Your task to perform on an android device: turn off location history Image 0: 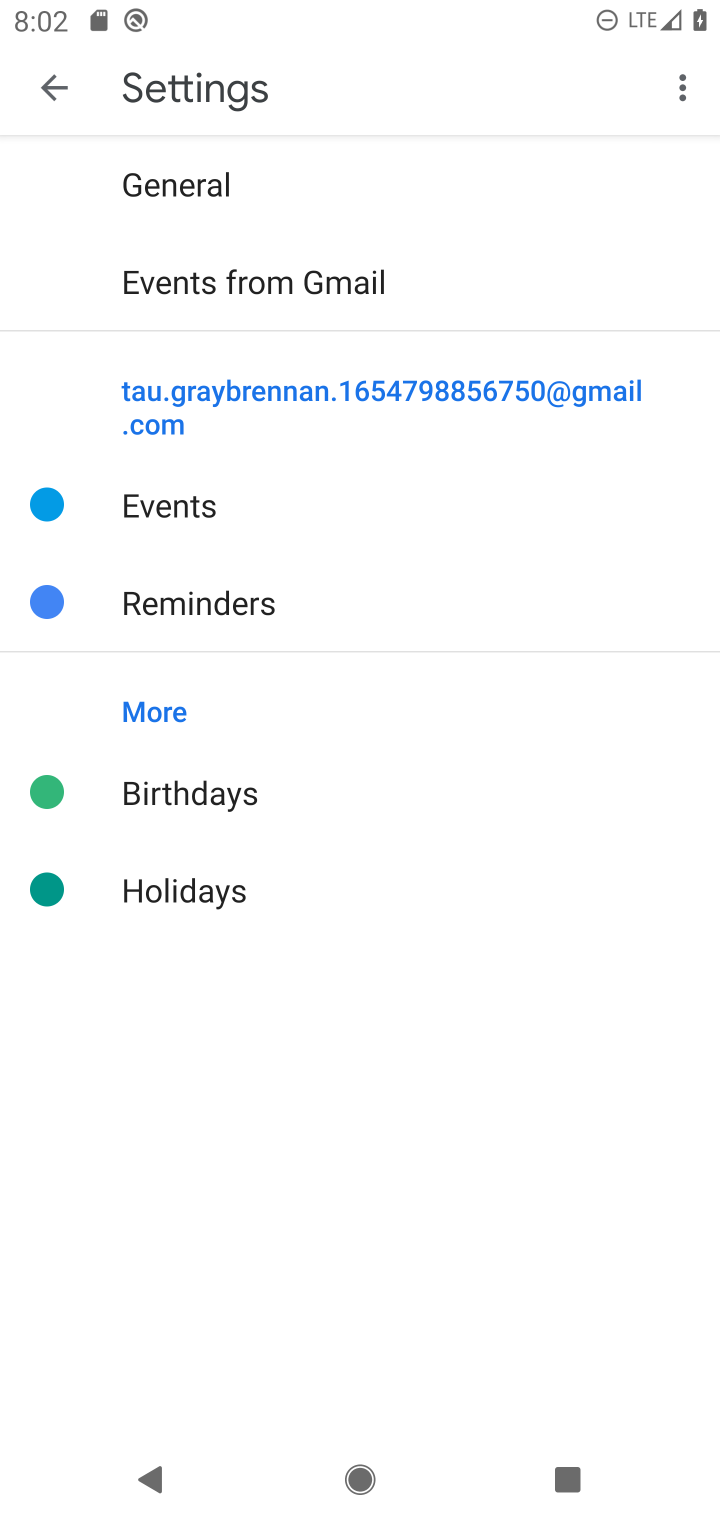
Step 0: press home button
Your task to perform on an android device: turn off location history Image 1: 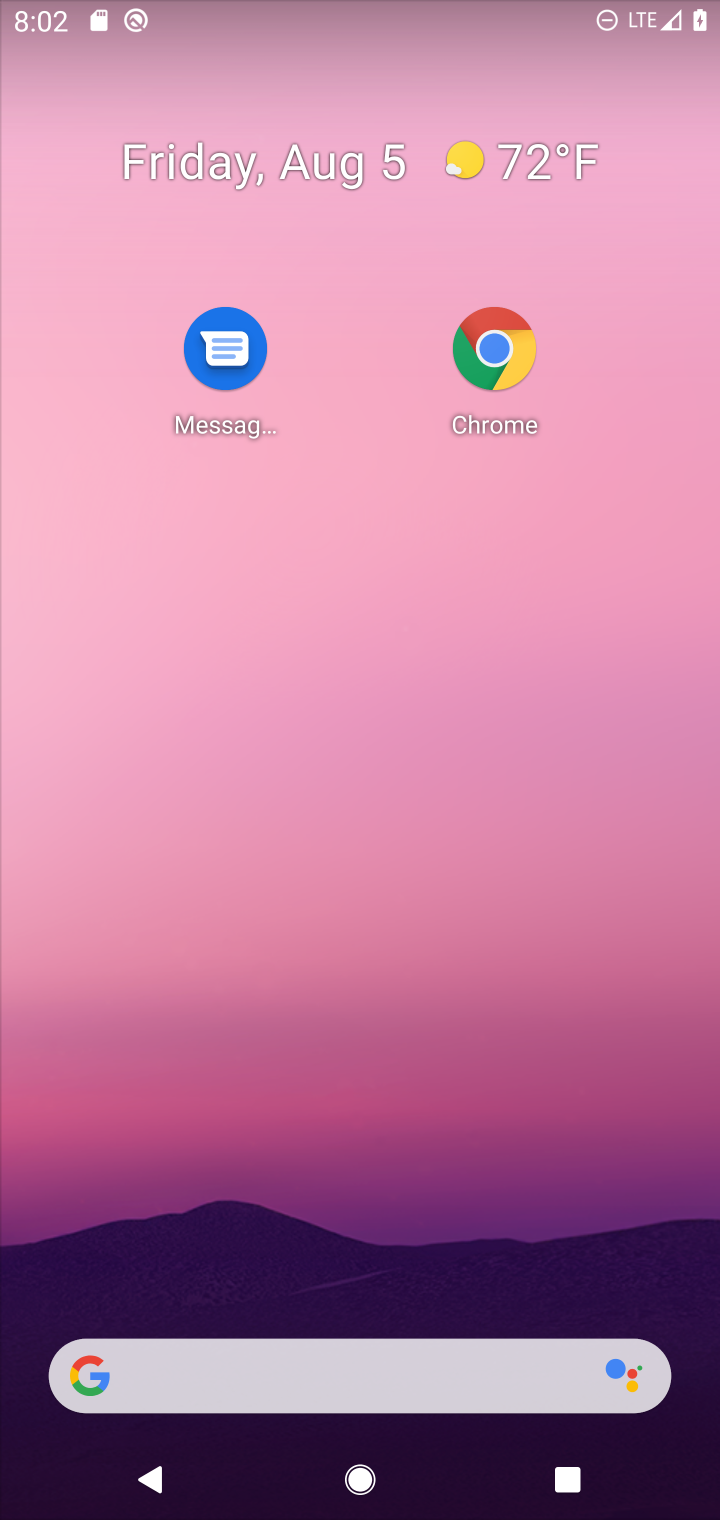
Step 1: drag from (490, 1433) to (340, 229)
Your task to perform on an android device: turn off location history Image 2: 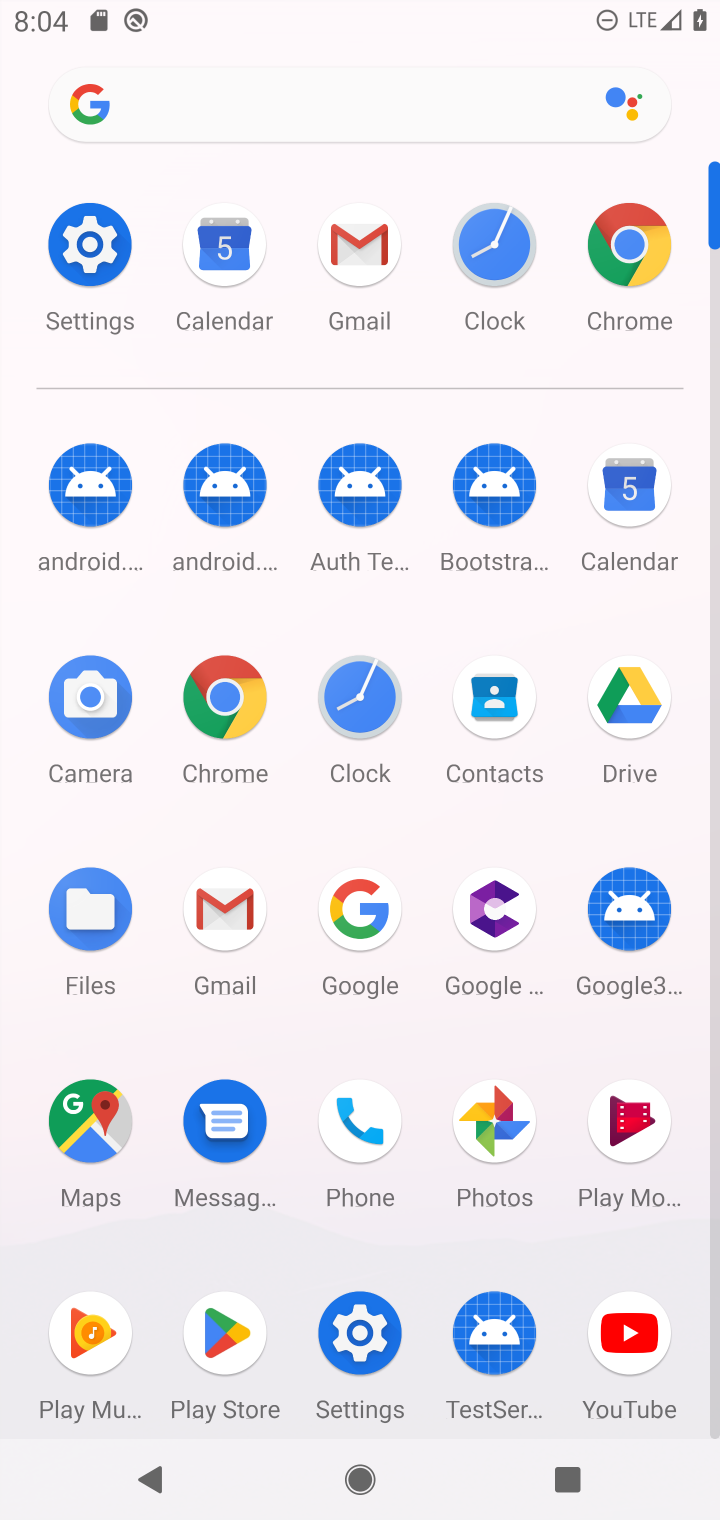
Step 2: click (68, 274)
Your task to perform on an android device: turn off location history Image 3: 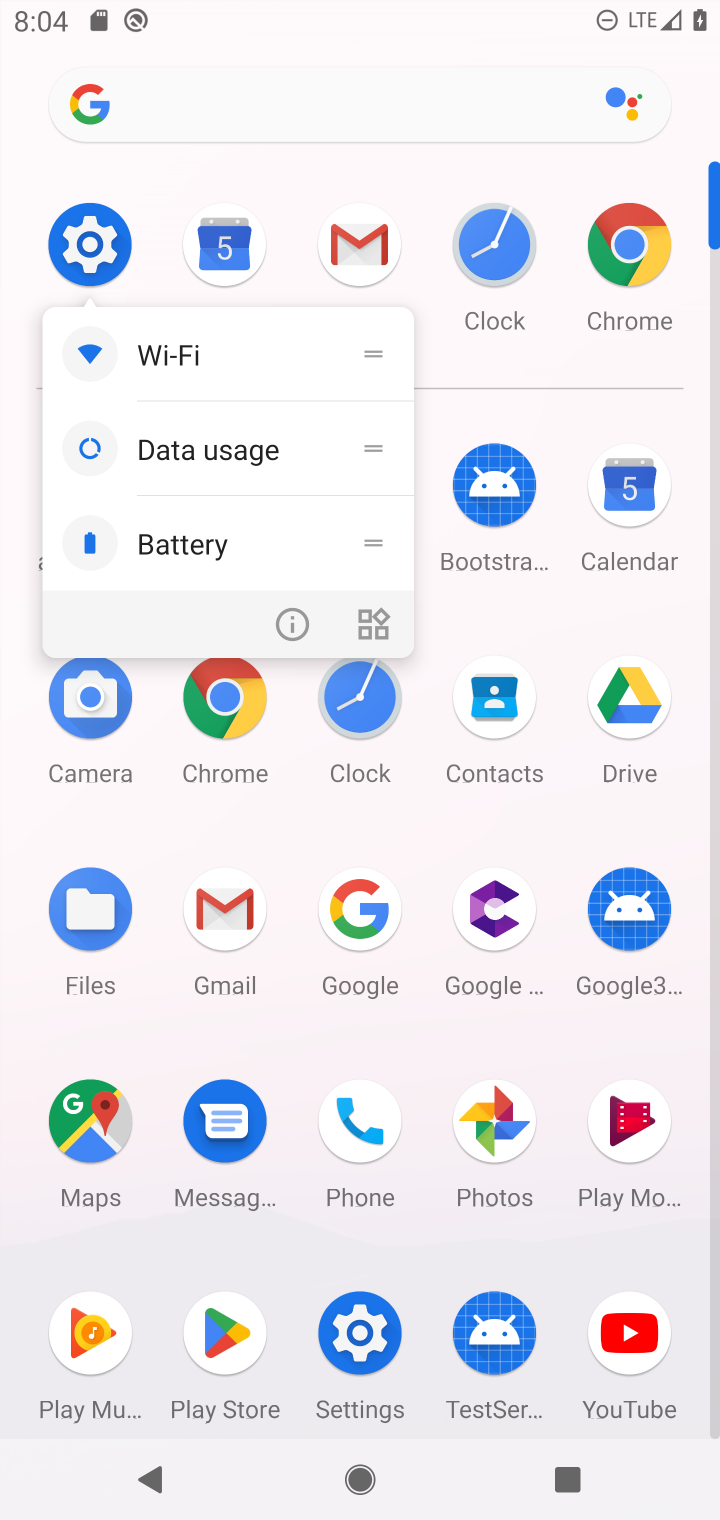
Step 3: click (107, 244)
Your task to perform on an android device: turn off location history Image 4: 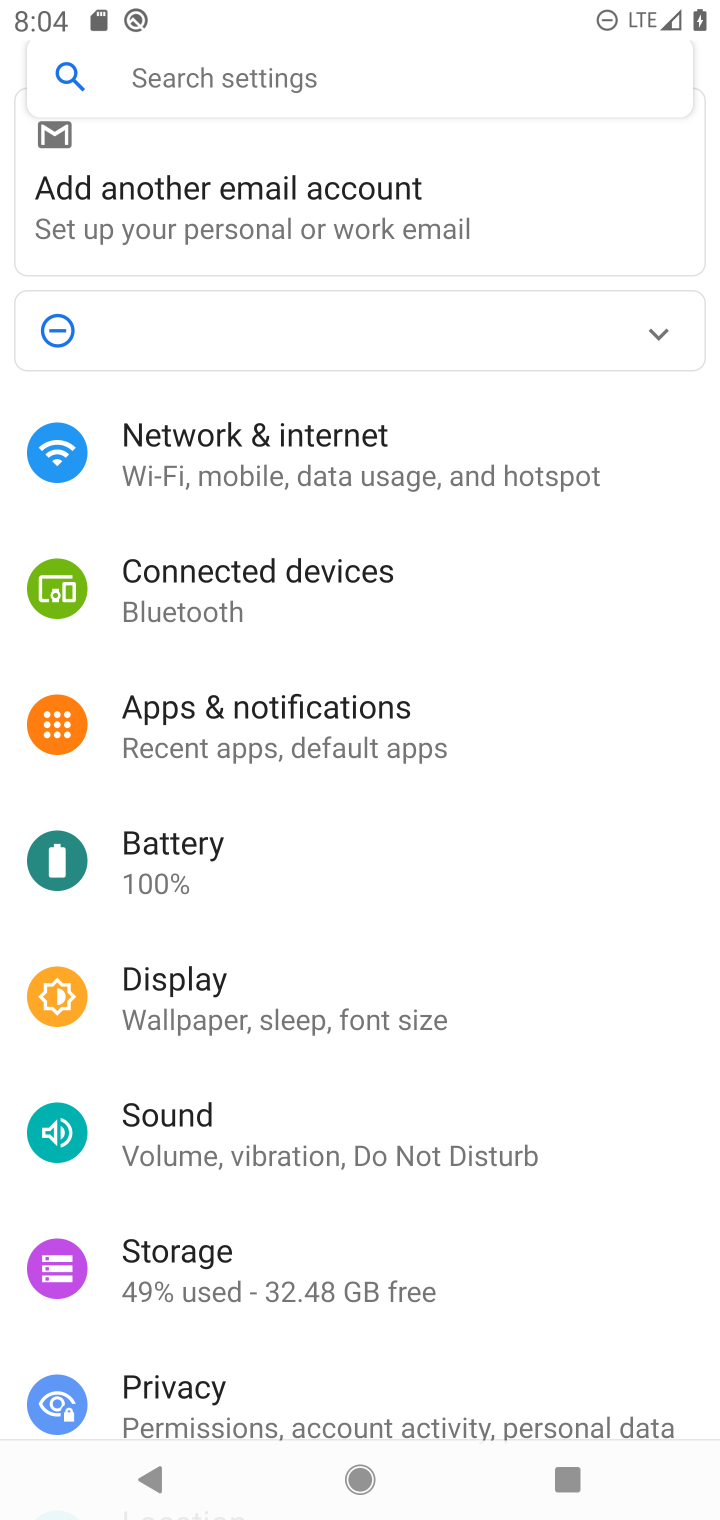
Step 4: click (245, 73)
Your task to perform on an android device: turn off location history Image 5: 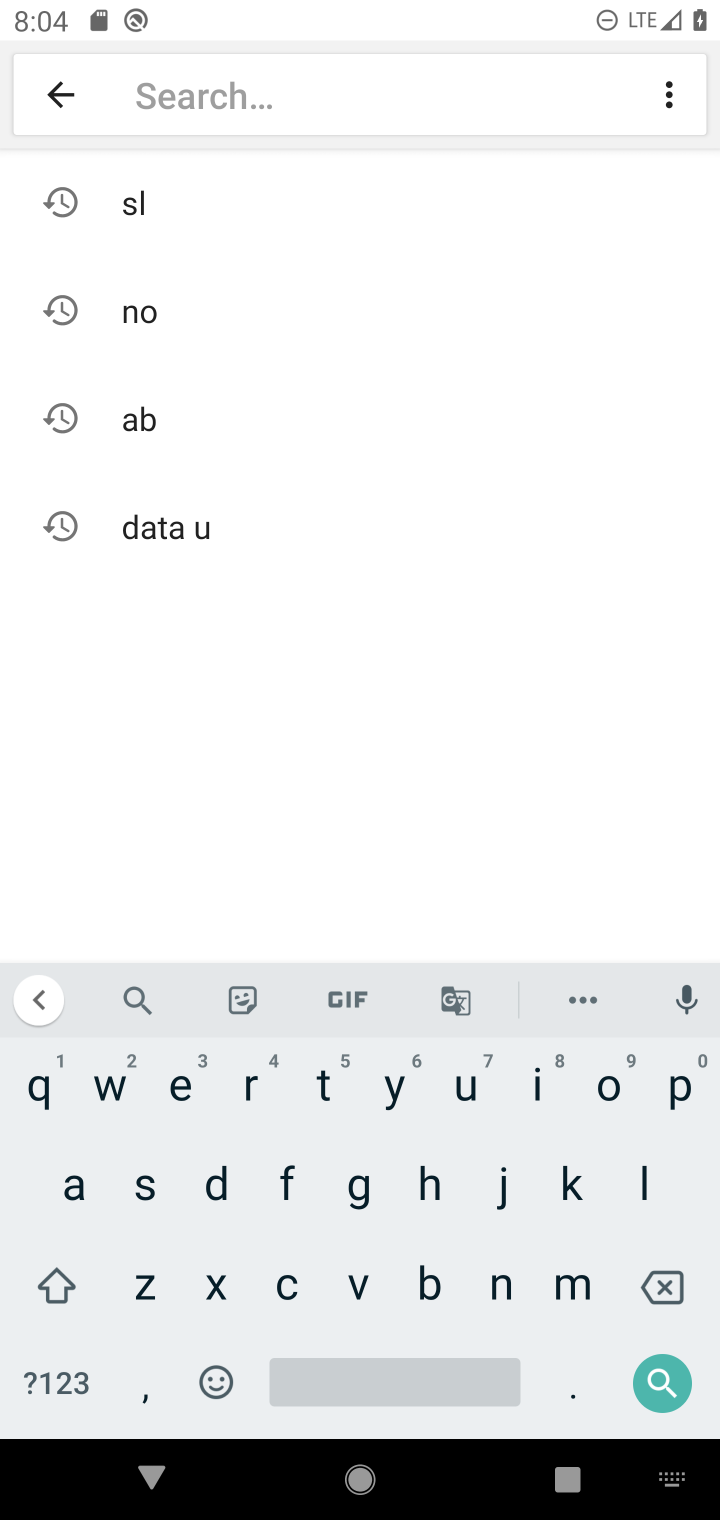
Step 5: click (627, 1184)
Your task to perform on an android device: turn off location history Image 6: 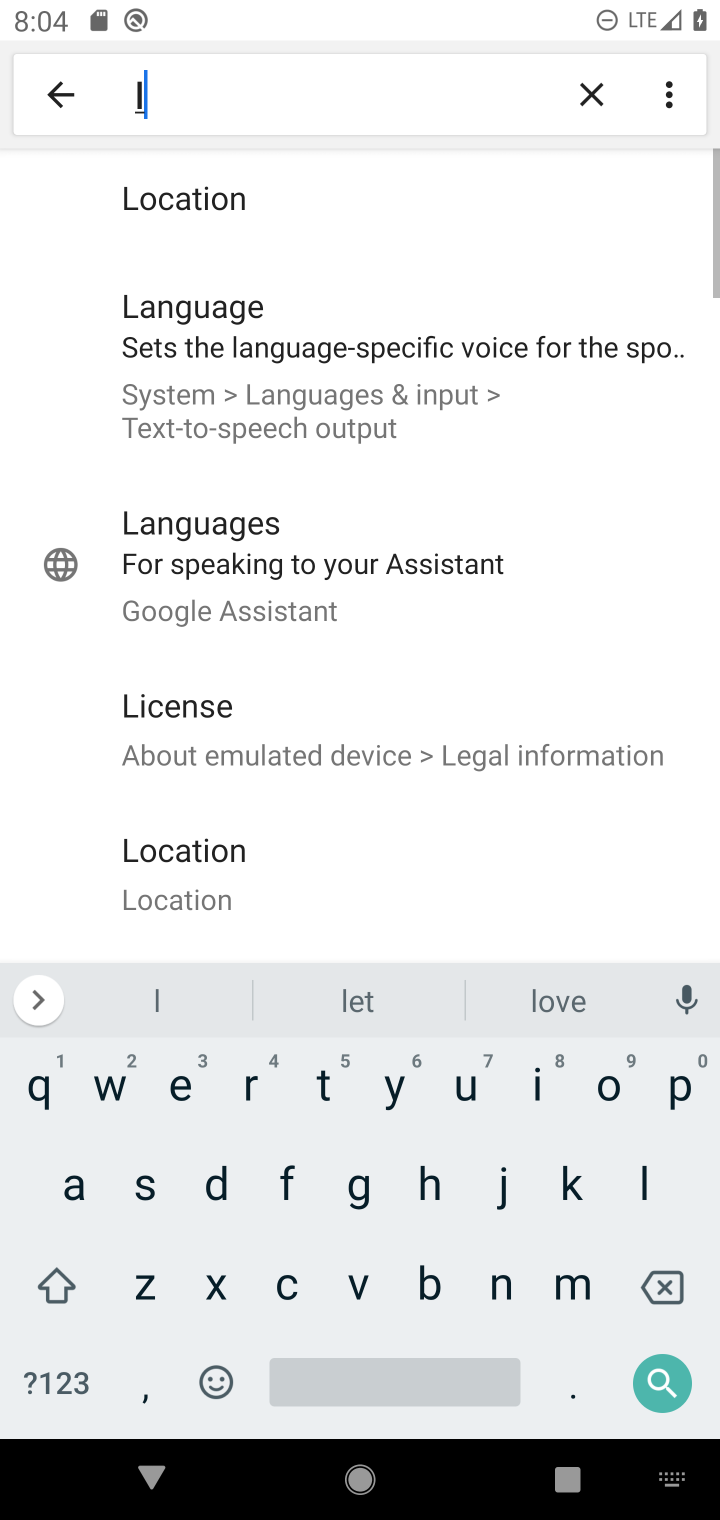
Step 6: click (603, 1092)
Your task to perform on an android device: turn off location history Image 7: 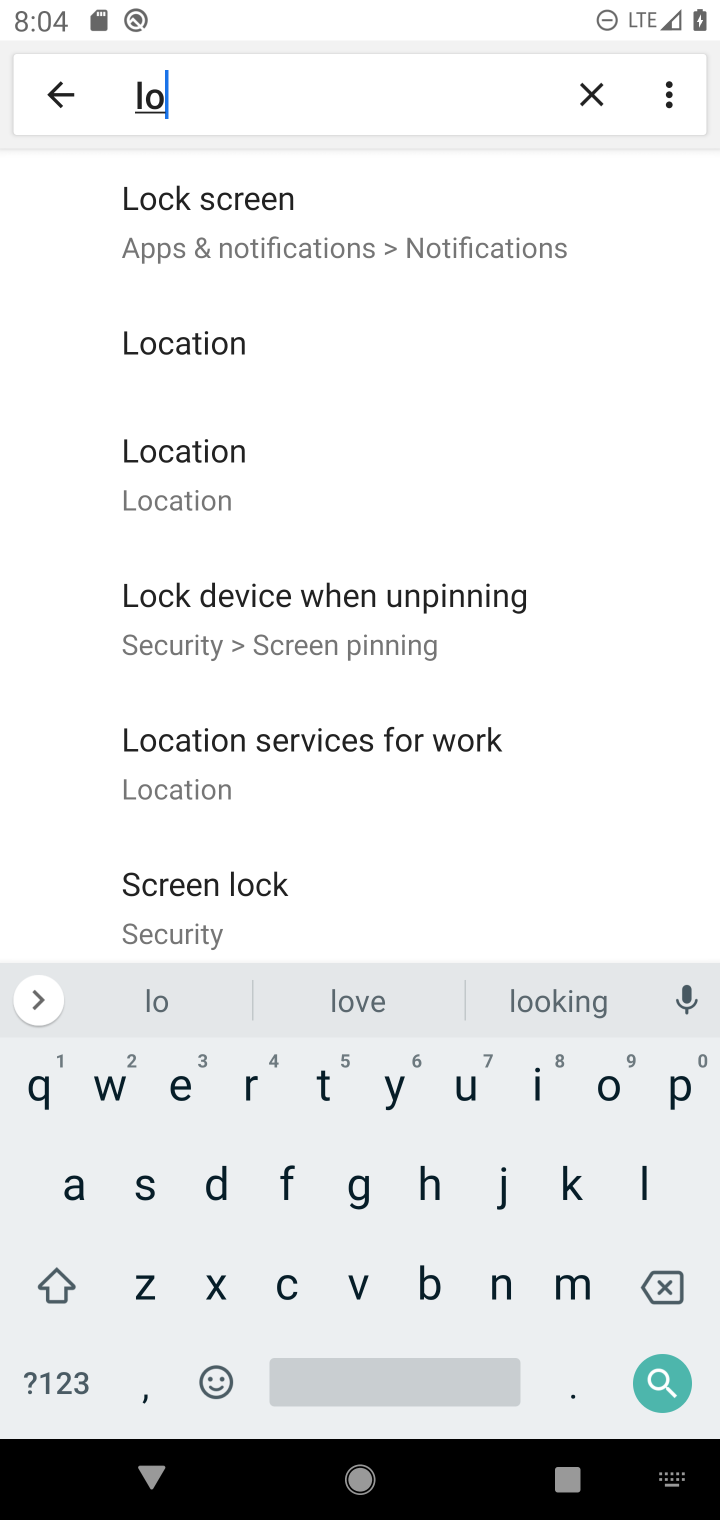
Step 7: click (203, 460)
Your task to perform on an android device: turn off location history Image 8: 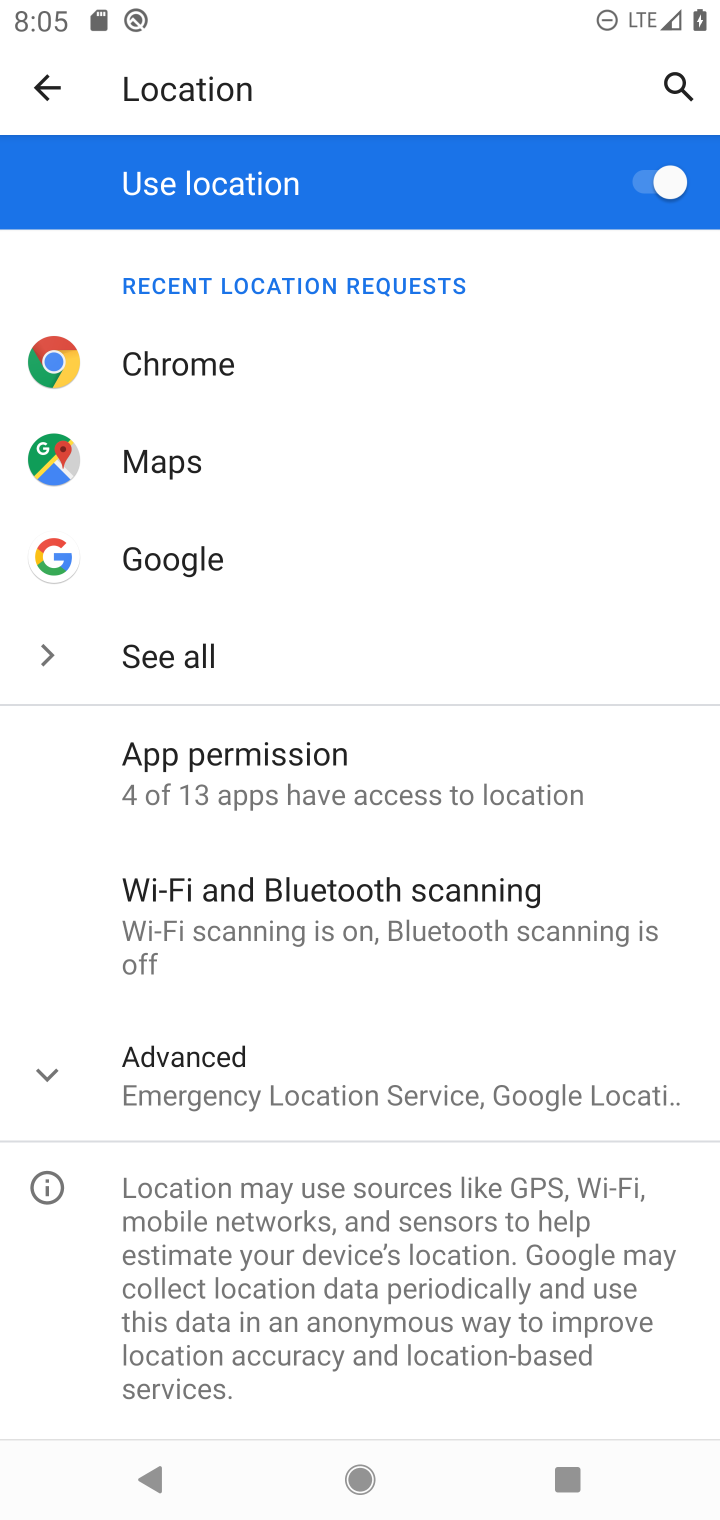
Step 8: click (636, 187)
Your task to perform on an android device: turn off location history Image 9: 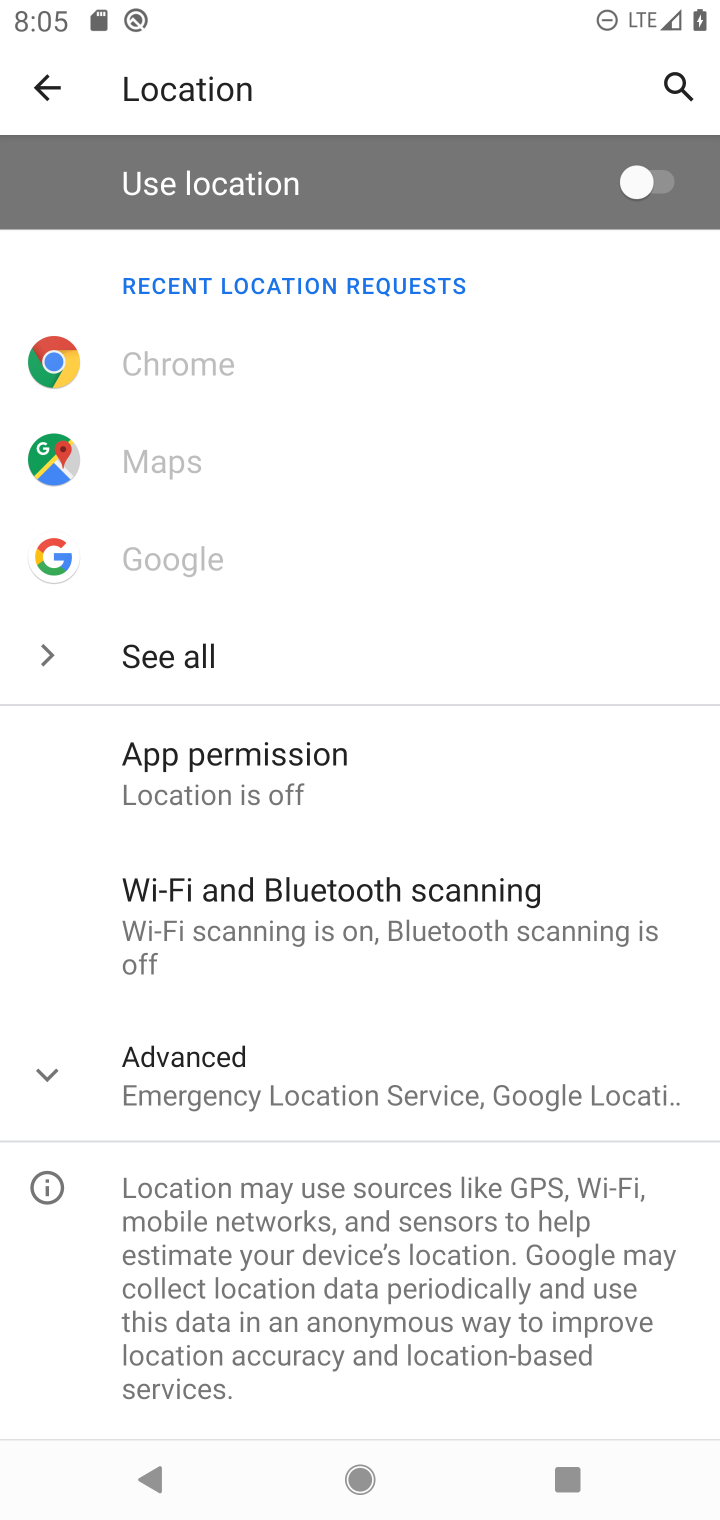
Step 9: task complete